Your task to perform on an android device: toggle javascript in the chrome app Image 0: 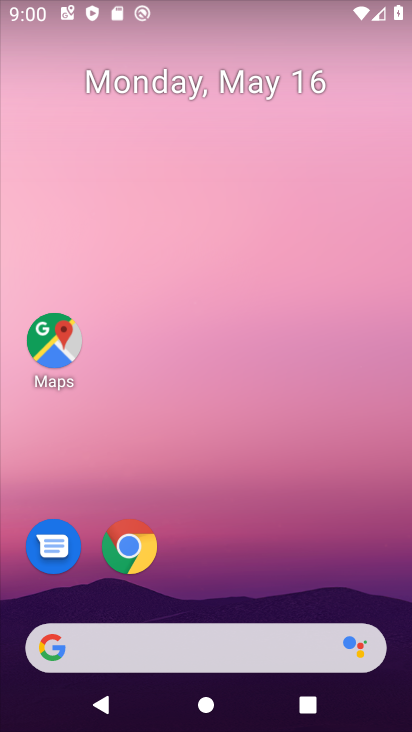
Step 0: drag from (303, 677) to (310, 189)
Your task to perform on an android device: toggle javascript in the chrome app Image 1: 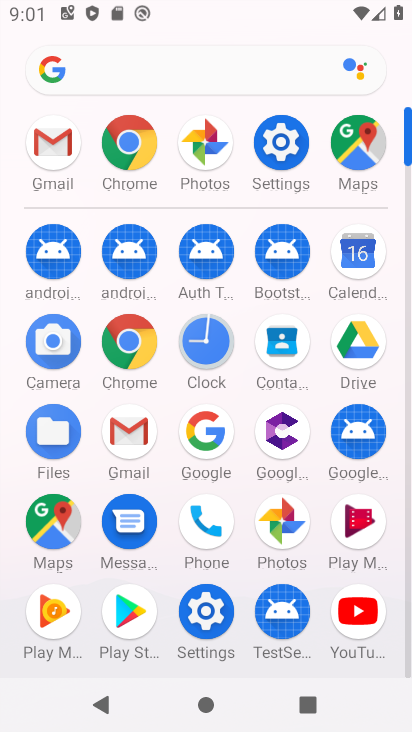
Step 1: click (145, 354)
Your task to perform on an android device: toggle javascript in the chrome app Image 2: 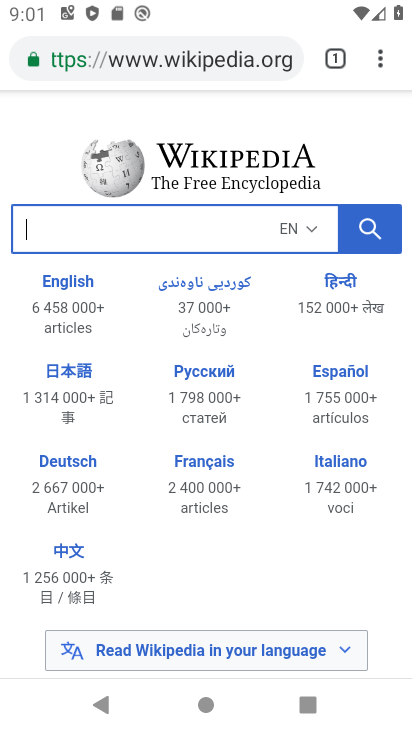
Step 2: click (376, 66)
Your task to perform on an android device: toggle javascript in the chrome app Image 3: 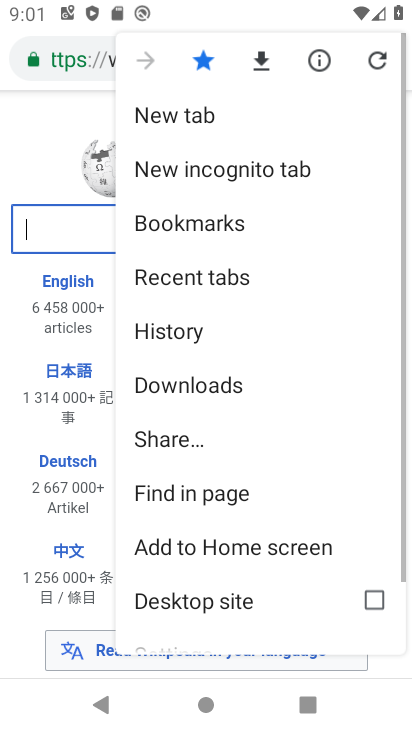
Step 3: drag from (231, 559) to (292, 194)
Your task to perform on an android device: toggle javascript in the chrome app Image 4: 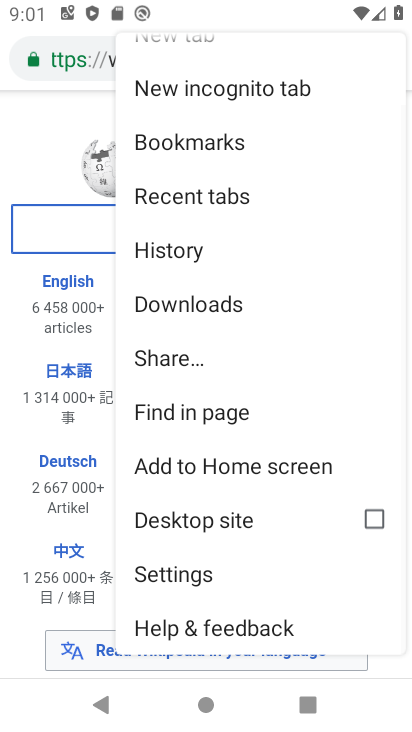
Step 4: click (198, 565)
Your task to perform on an android device: toggle javascript in the chrome app Image 5: 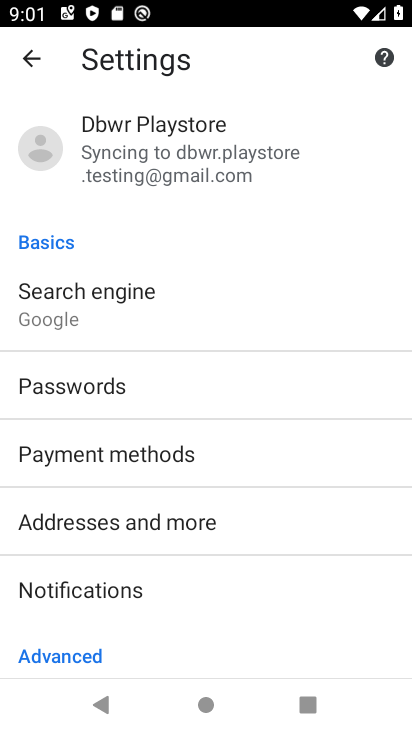
Step 5: drag from (182, 537) to (182, 213)
Your task to perform on an android device: toggle javascript in the chrome app Image 6: 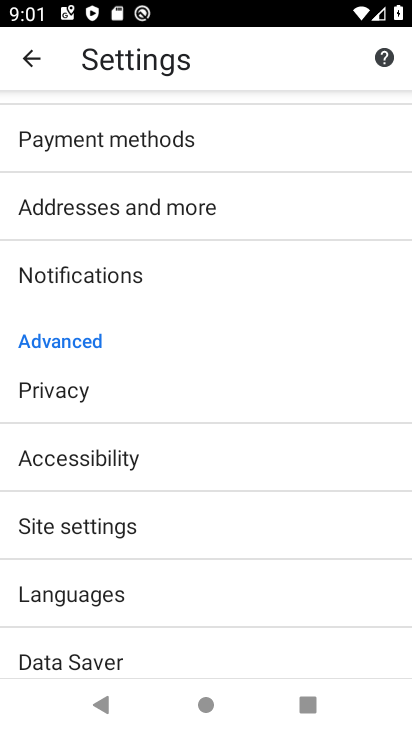
Step 6: click (94, 523)
Your task to perform on an android device: toggle javascript in the chrome app Image 7: 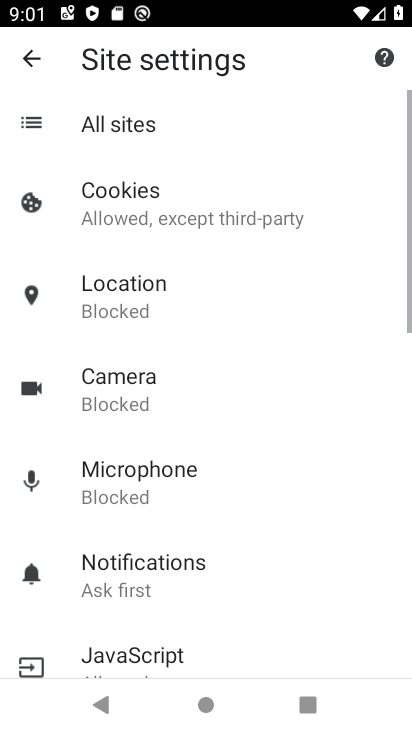
Step 7: click (143, 653)
Your task to perform on an android device: toggle javascript in the chrome app Image 8: 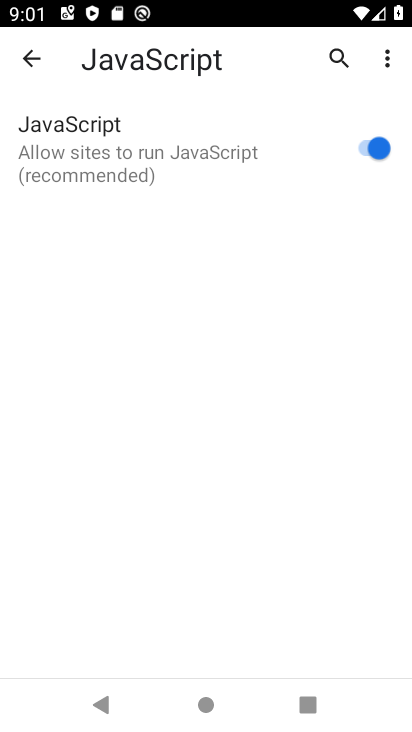
Step 8: task complete